Your task to perform on an android device: star an email in the gmail app Image 0: 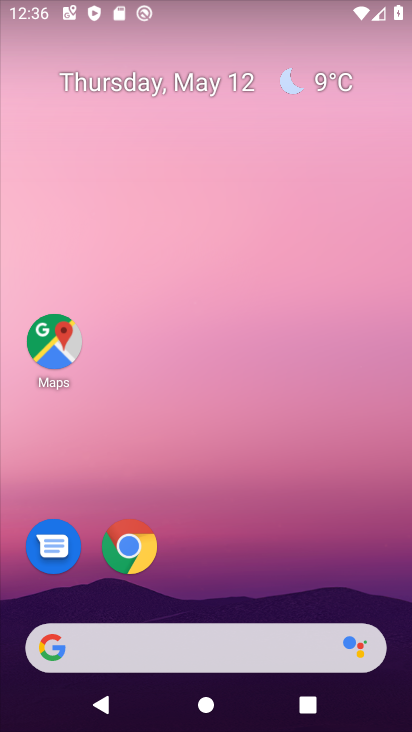
Step 0: drag from (138, 560) to (190, 226)
Your task to perform on an android device: star an email in the gmail app Image 1: 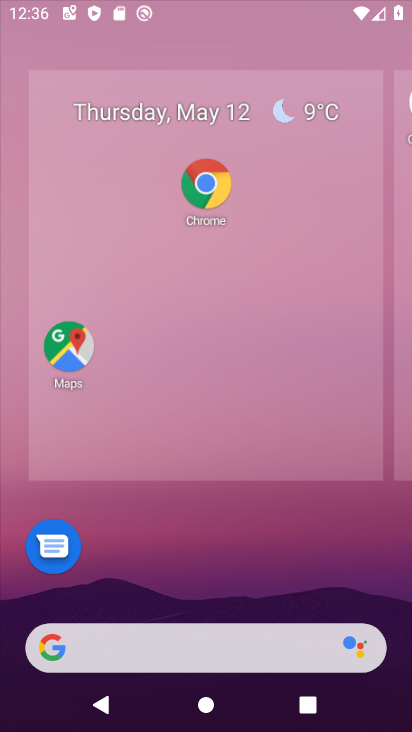
Step 1: drag from (255, 578) to (269, 62)
Your task to perform on an android device: star an email in the gmail app Image 2: 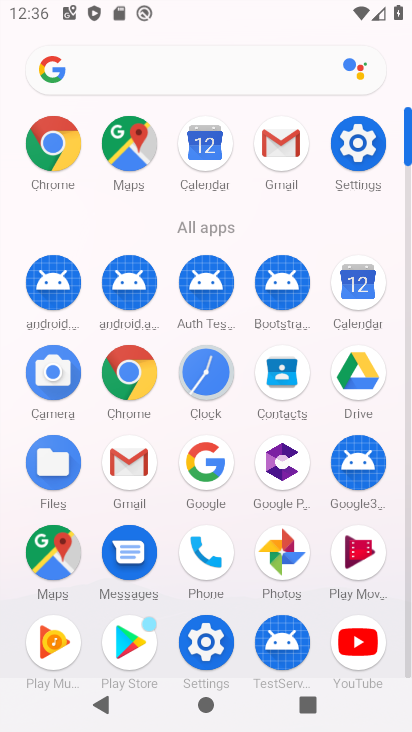
Step 2: click (286, 159)
Your task to perform on an android device: star an email in the gmail app Image 3: 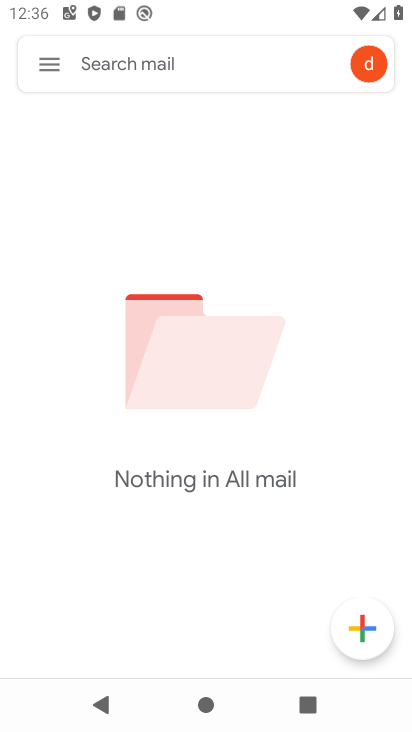
Step 3: click (50, 67)
Your task to perform on an android device: star an email in the gmail app Image 4: 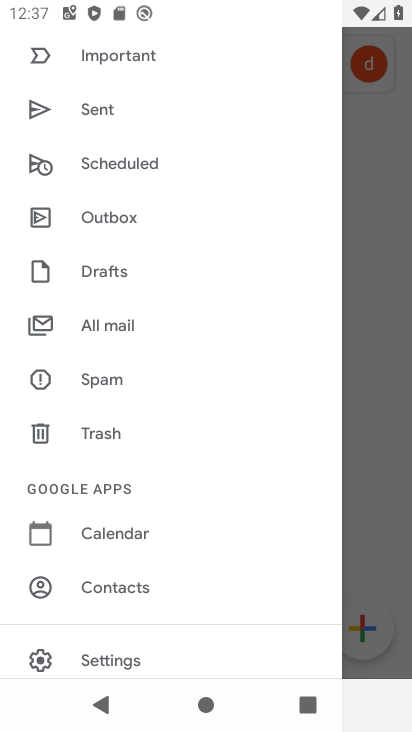
Step 4: drag from (202, 134) to (220, 516)
Your task to perform on an android device: star an email in the gmail app Image 5: 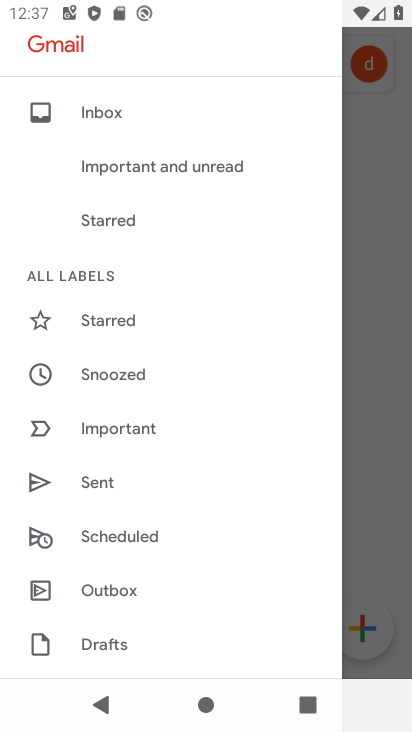
Step 5: click (140, 122)
Your task to perform on an android device: star an email in the gmail app Image 6: 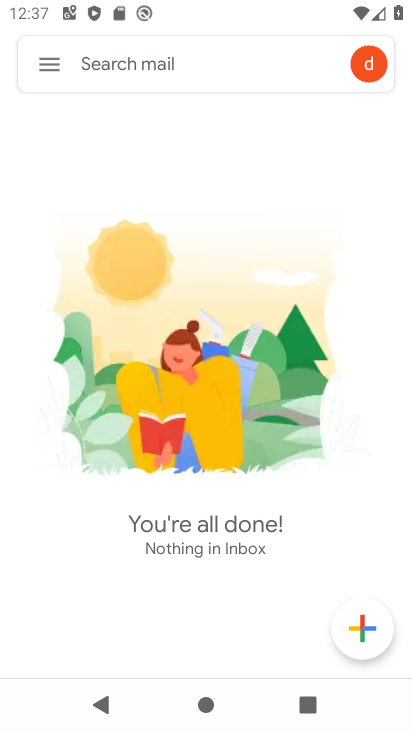
Step 6: task complete